Your task to perform on an android device: Go to Yahoo.com Image 0: 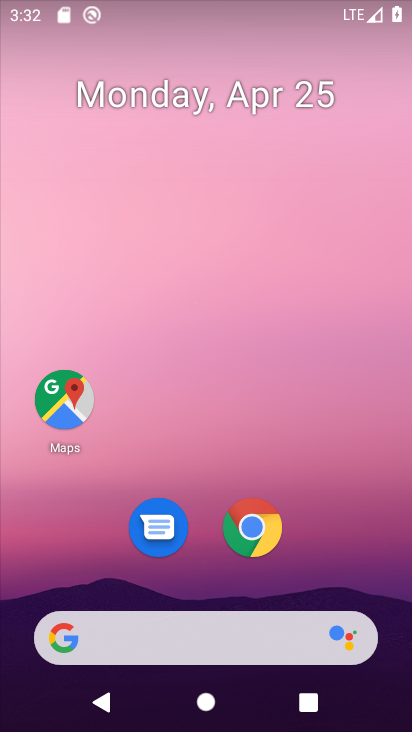
Step 0: click (257, 526)
Your task to perform on an android device: Go to Yahoo.com Image 1: 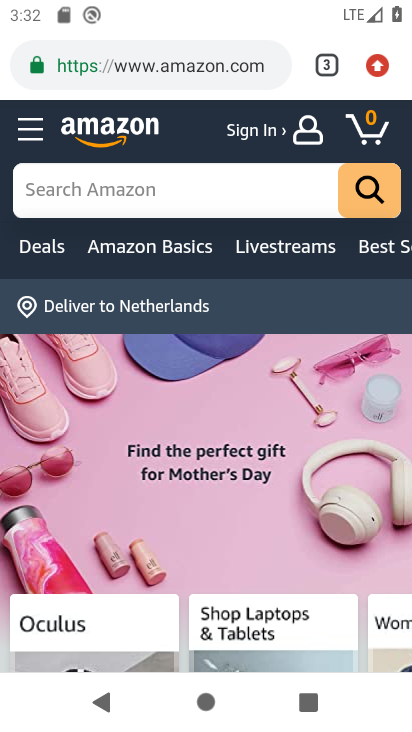
Step 1: click (181, 57)
Your task to perform on an android device: Go to Yahoo.com Image 2: 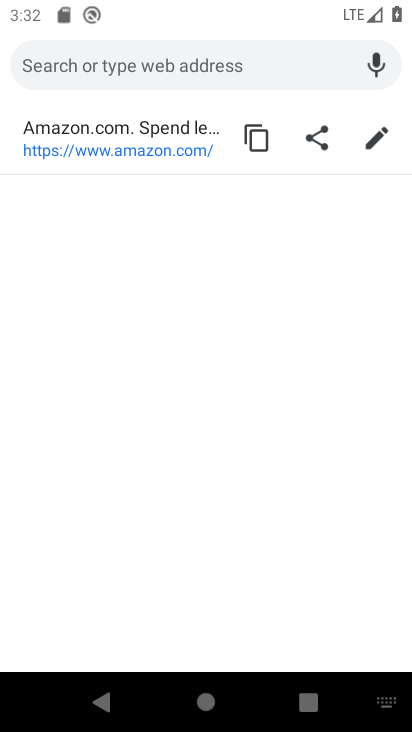
Step 2: type "yahoo.com"
Your task to perform on an android device: Go to Yahoo.com Image 3: 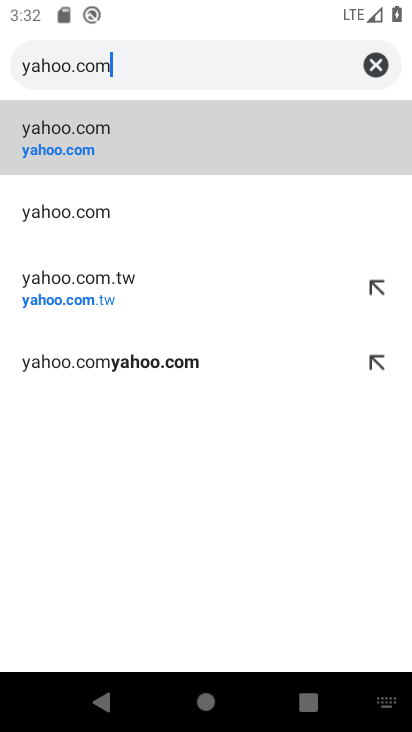
Step 3: click (88, 140)
Your task to perform on an android device: Go to Yahoo.com Image 4: 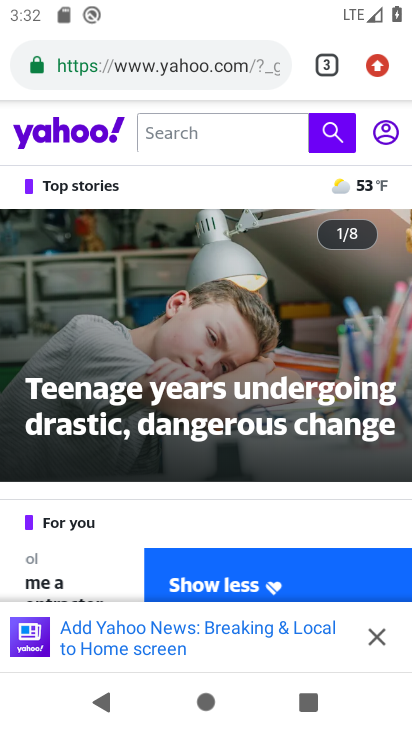
Step 4: task complete